Your task to perform on an android device: Search for Italian restaurants on Maps Image 0: 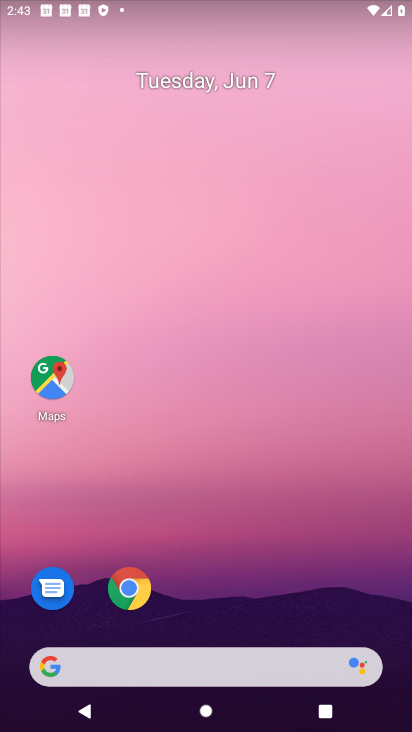
Step 0: click (56, 377)
Your task to perform on an android device: Search for Italian restaurants on Maps Image 1: 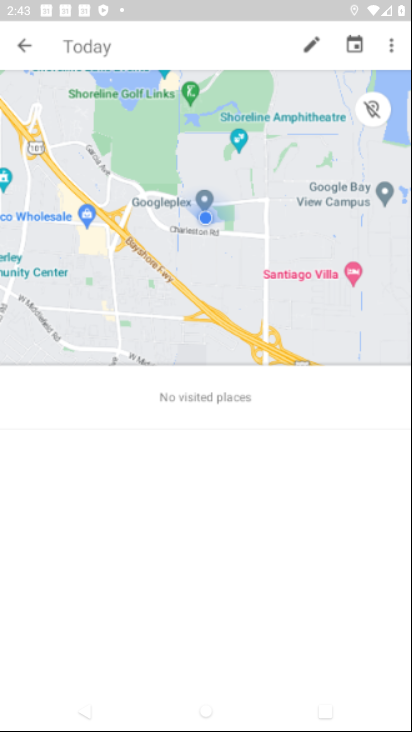
Step 1: task complete